Your task to perform on an android device: turn off priority inbox in the gmail app Image 0: 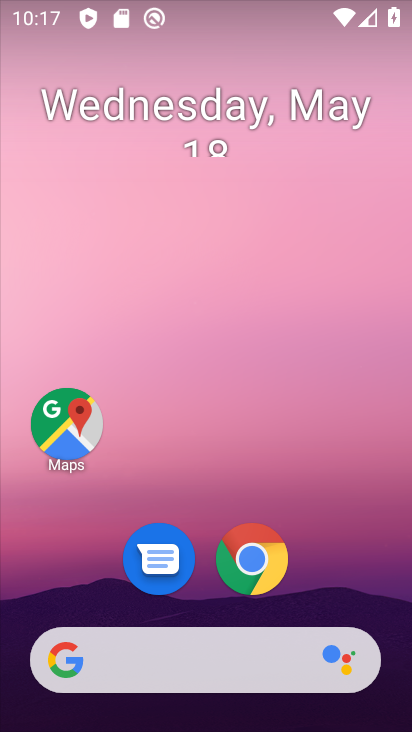
Step 0: drag from (223, 610) to (72, 0)
Your task to perform on an android device: turn off priority inbox in the gmail app Image 1: 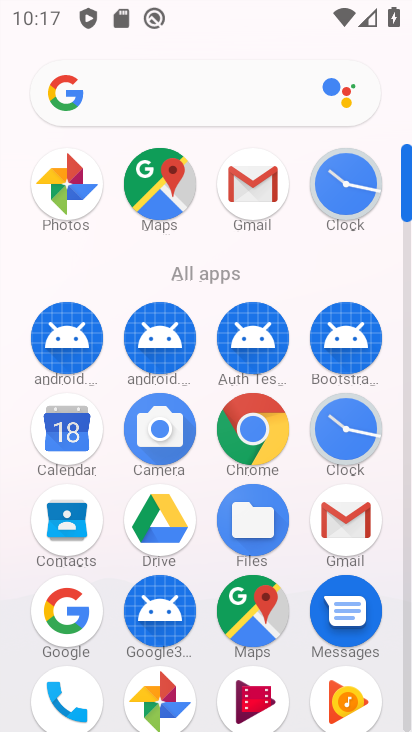
Step 1: click (340, 537)
Your task to perform on an android device: turn off priority inbox in the gmail app Image 2: 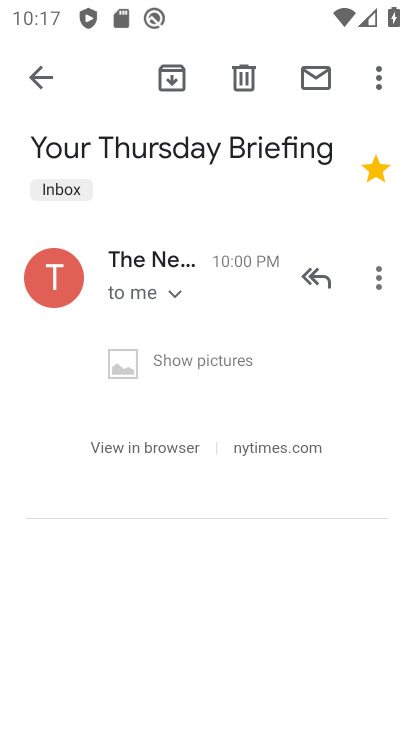
Step 2: click (36, 81)
Your task to perform on an android device: turn off priority inbox in the gmail app Image 3: 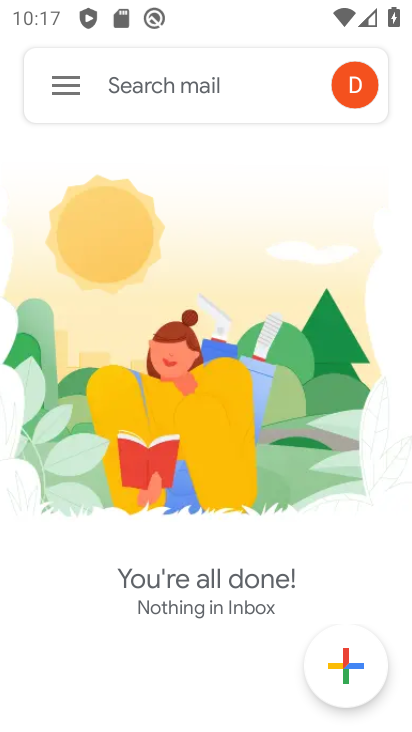
Step 3: click (69, 87)
Your task to perform on an android device: turn off priority inbox in the gmail app Image 4: 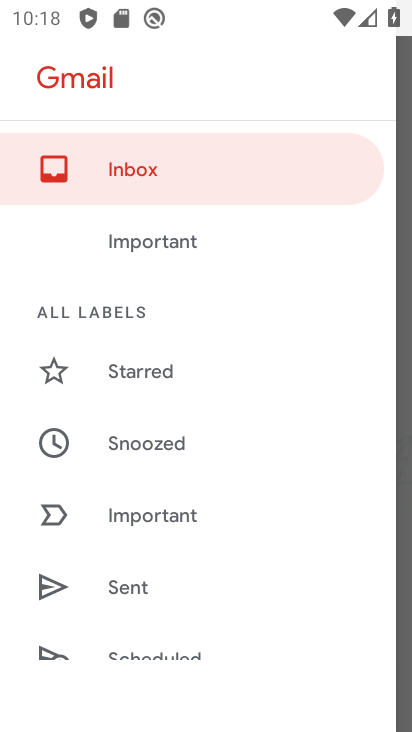
Step 4: drag from (180, 550) to (224, 162)
Your task to perform on an android device: turn off priority inbox in the gmail app Image 5: 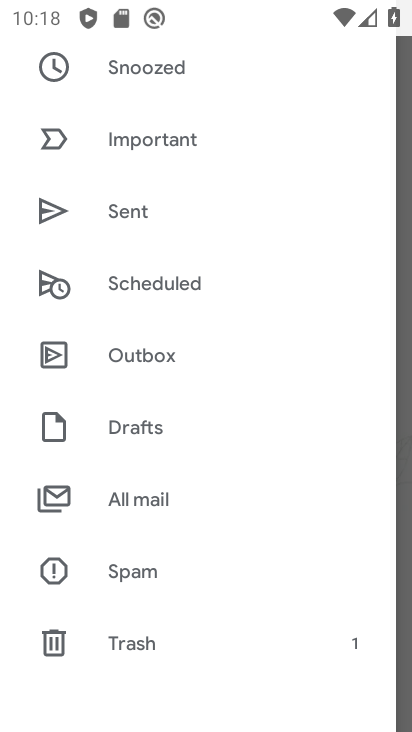
Step 5: drag from (132, 619) to (166, 255)
Your task to perform on an android device: turn off priority inbox in the gmail app Image 6: 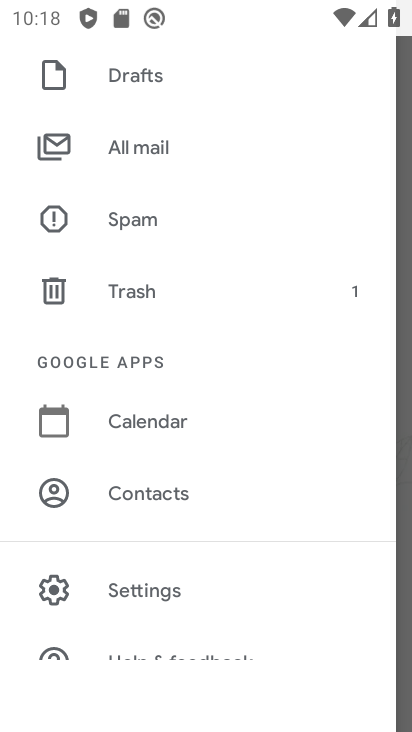
Step 6: click (171, 597)
Your task to perform on an android device: turn off priority inbox in the gmail app Image 7: 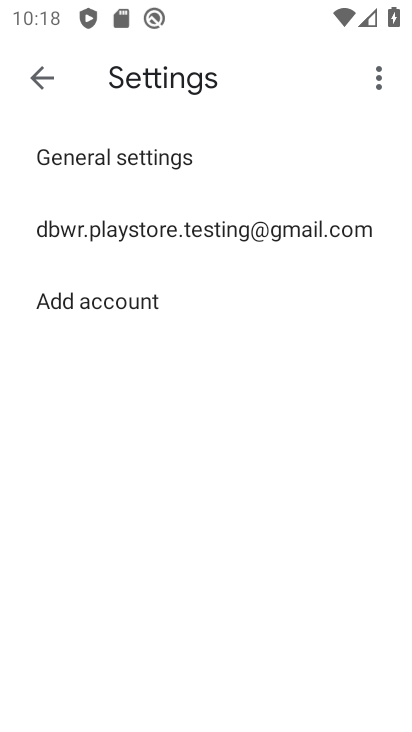
Step 7: click (140, 232)
Your task to perform on an android device: turn off priority inbox in the gmail app Image 8: 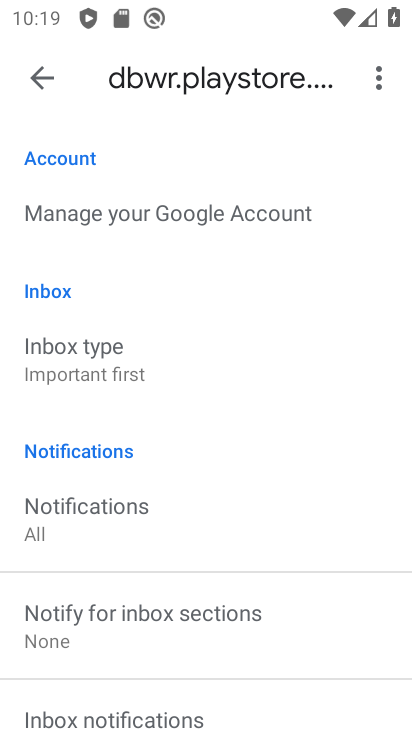
Step 8: click (107, 350)
Your task to perform on an android device: turn off priority inbox in the gmail app Image 9: 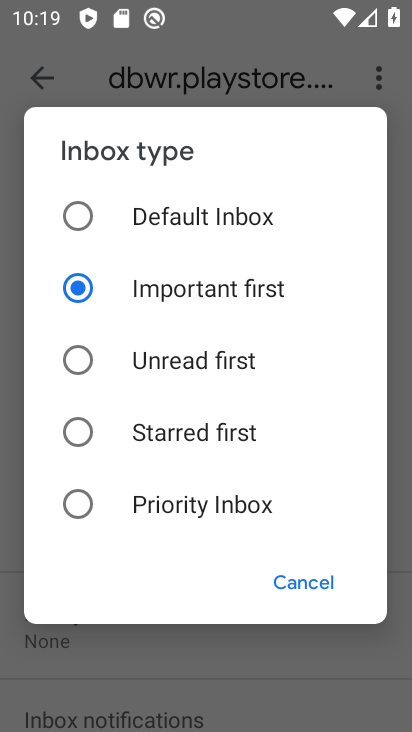
Step 9: task complete